Your task to perform on an android device: set the stopwatch Image 0: 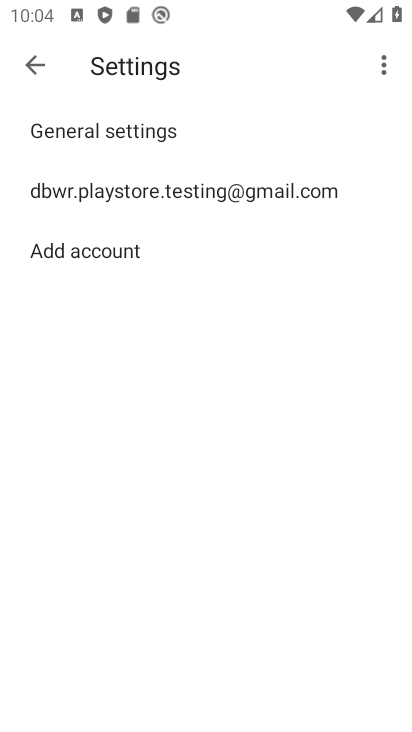
Step 0: press home button
Your task to perform on an android device: set the stopwatch Image 1: 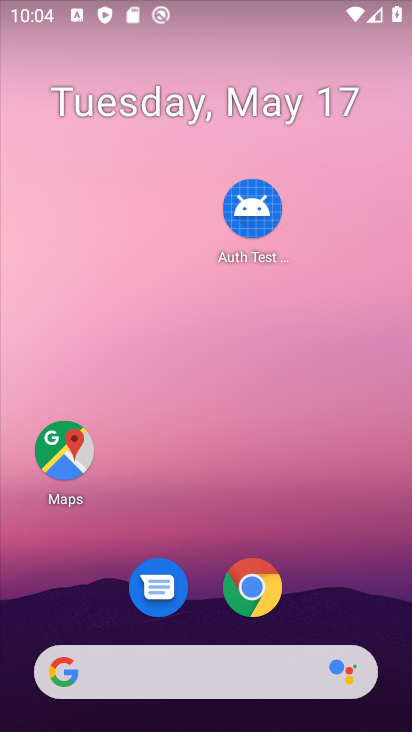
Step 1: drag from (169, 511) to (114, 140)
Your task to perform on an android device: set the stopwatch Image 2: 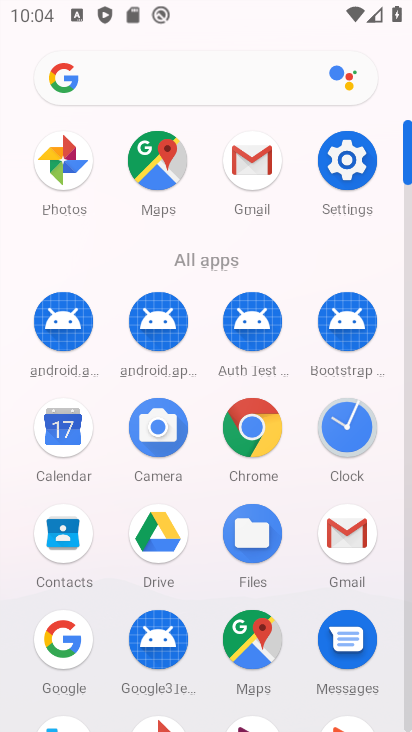
Step 2: click (350, 414)
Your task to perform on an android device: set the stopwatch Image 3: 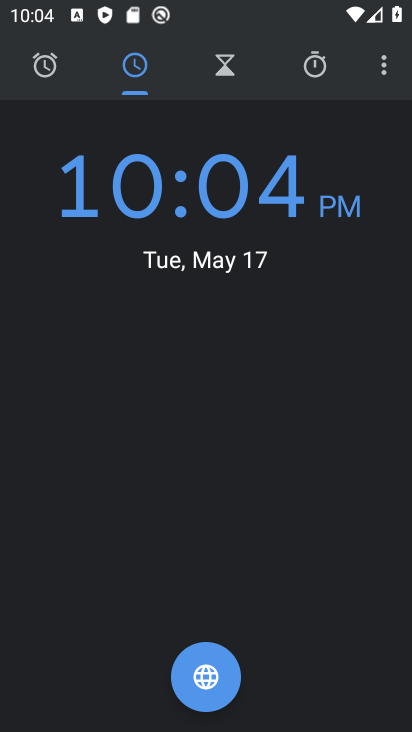
Step 3: click (318, 71)
Your task to perform on an android device: set the stopwatch Image 4: 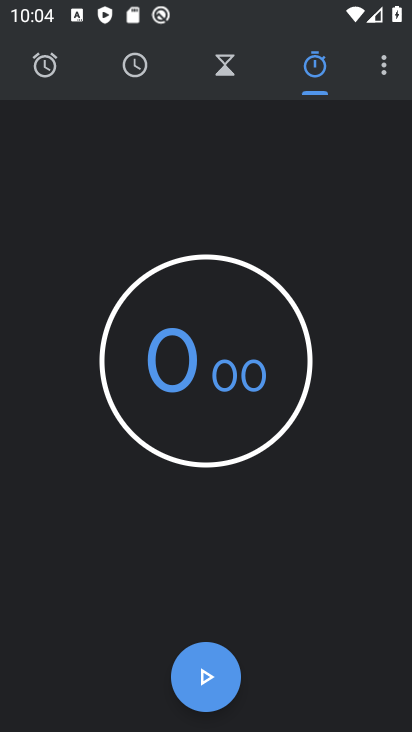
Step 4: click (223, 668)
Your task to perform on an android device: set the stopwatch Image 5: 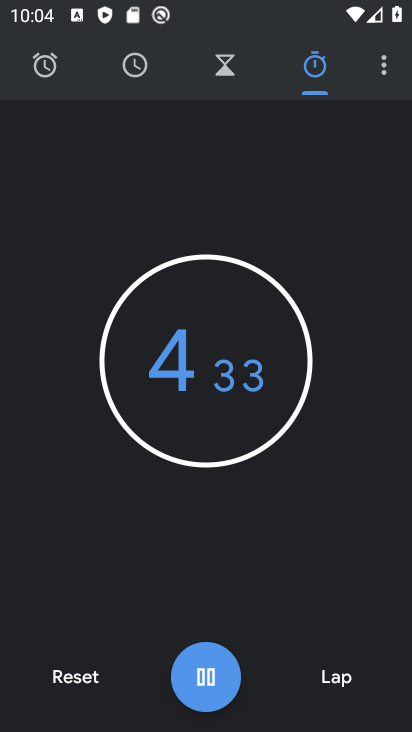
Step 5: task complete